Your task to perform on an android device: check android version Image 0: 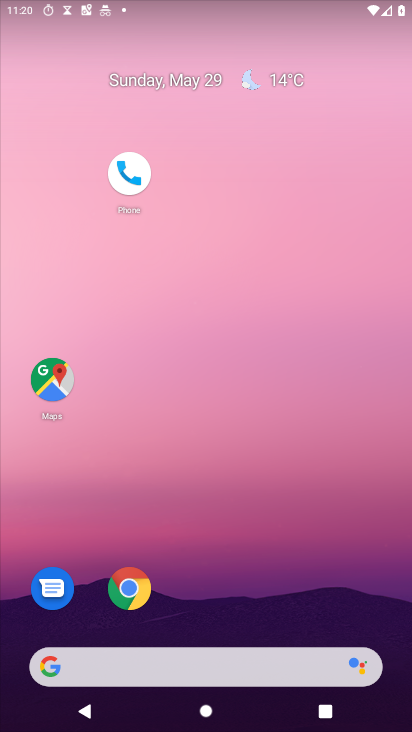
Step 0: drag from (198, 668) to (171, 404)
Your task to perform on an android device: check android version Image 1: 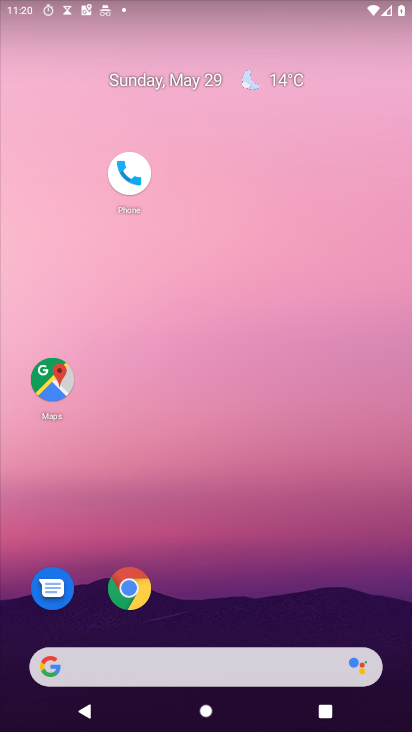
Step 1: drag from (272, 648) to (303, 41)
Your task to perform on an android device: check android version Image 2: 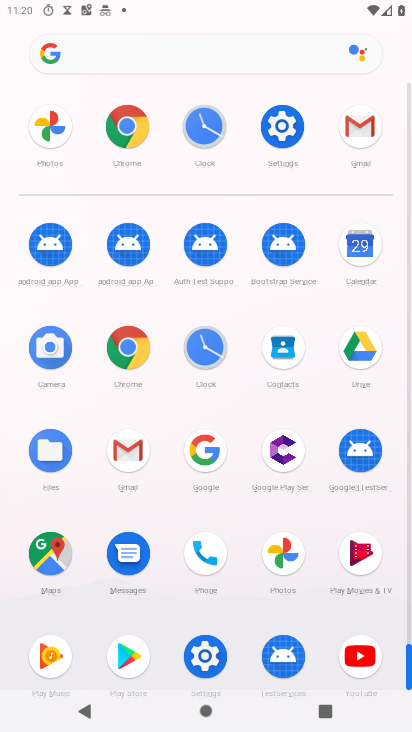
Step 2: drag from (258, 601) to (251, 91)
Your task to perform on an android device: check android version Image 3: 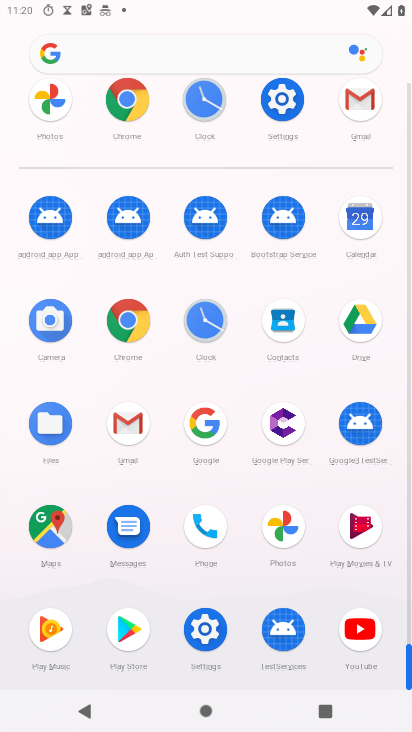
Step 3: click (191, 622)
Your task to perform on an android device: check android version Image 4: 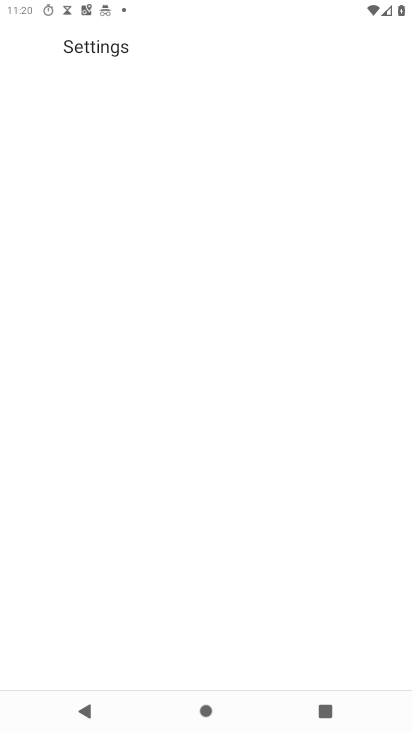
Step 4: click (197, 624)
Your task to perform on an android device: check android version Image 5: 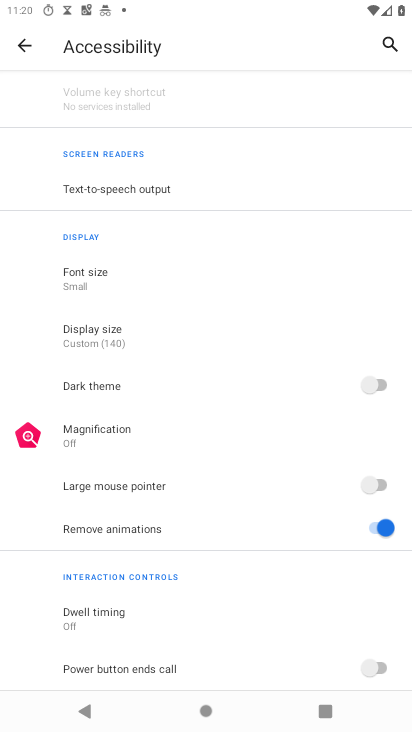
Step 5: drag from (131, 608) to (81, 269)
Your task to perform on an android device: check android version Image 6: 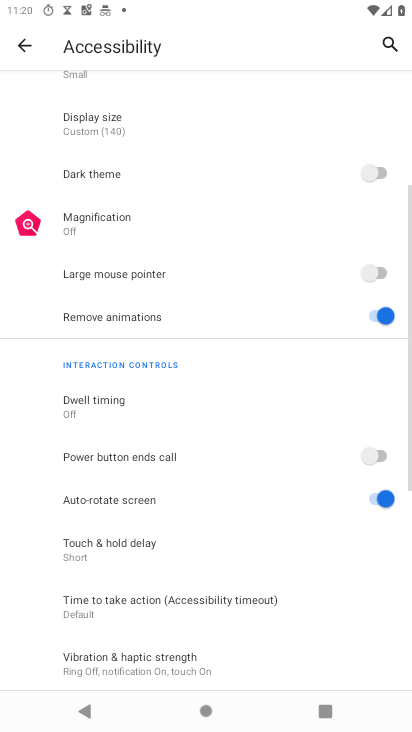
Step 6: click (22, 51)
Your task to perform on an android device: check android version Image 7: 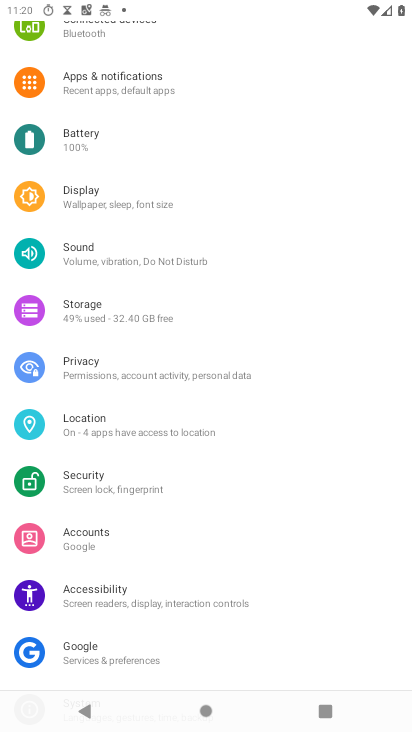
Step 7: drag from (133, 564) to (147, 144)
Your task to perform on an android device: check android version Image 8: 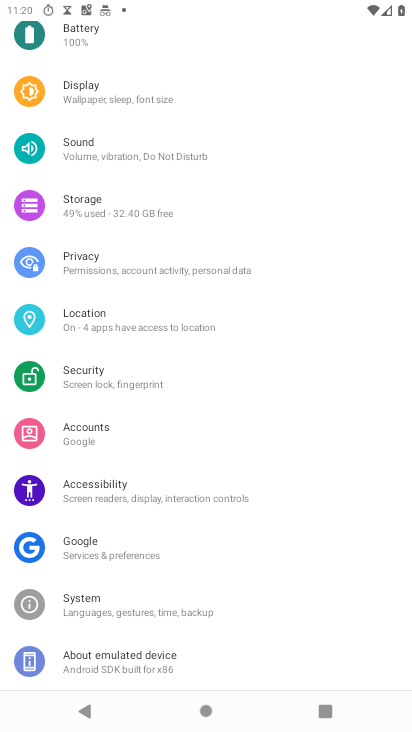
Step 8: drag from (148, 493) to (140, 162)
Your task to perform on an android device: check android version Image 9: 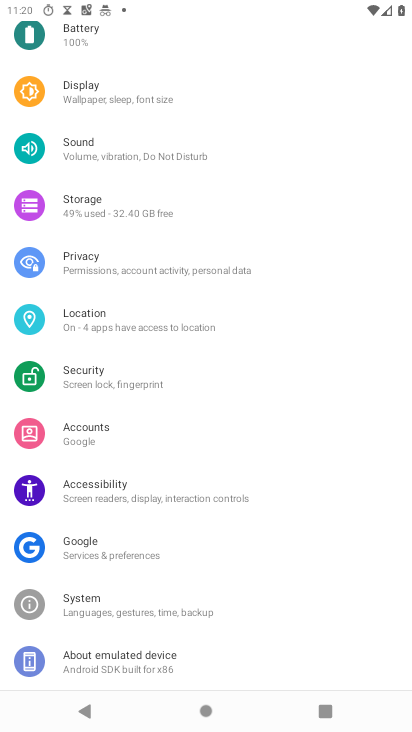
Step 9: click (91, 660)
Your task to perform on an android device: check android version Image 10: 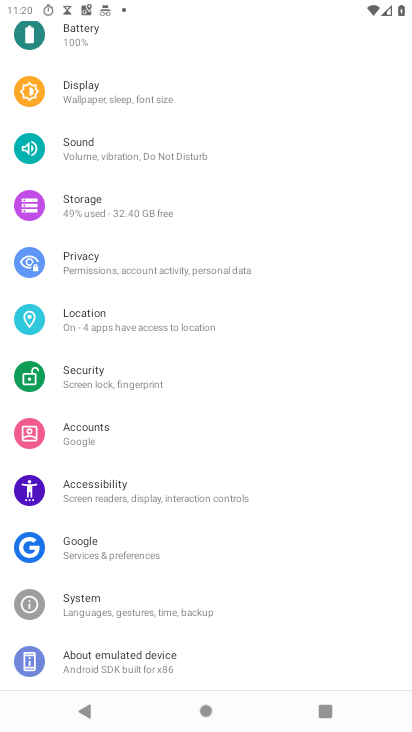
Step 10: click (91, 660)
Your task to perform on an android device: check android version Image 11: 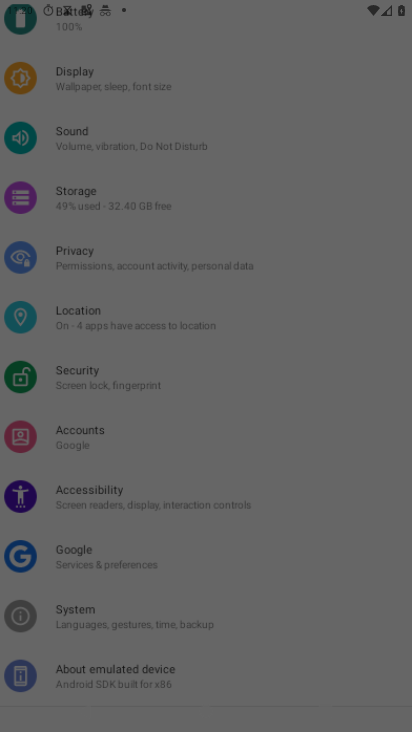
Step 11: click (91, 660)
Your task to perform on an android device: check android version Image 12: 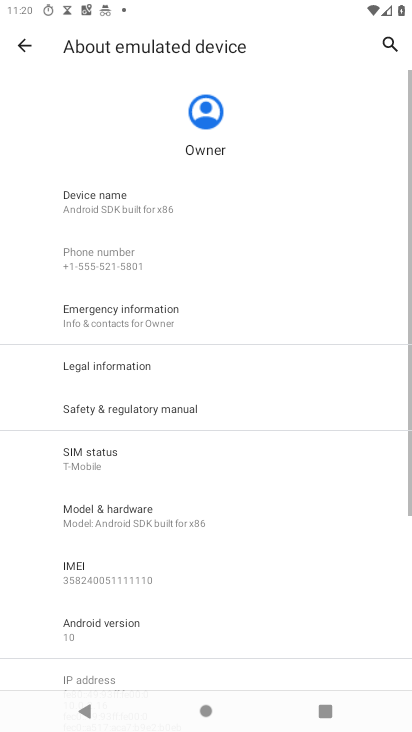
Step 12: drag from (194, 607) to (157, 92)
Your task to perform on an android device: check android version Image 13: 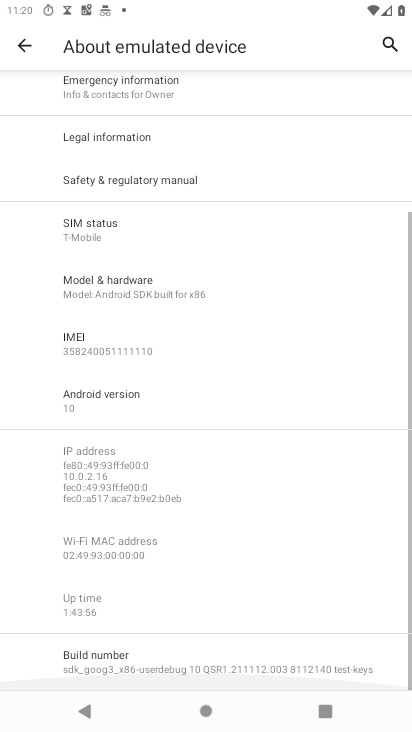
Step 13: drag from (202, 481) to (156, 41)
Your task to perform on an android device: check android version Image 14: 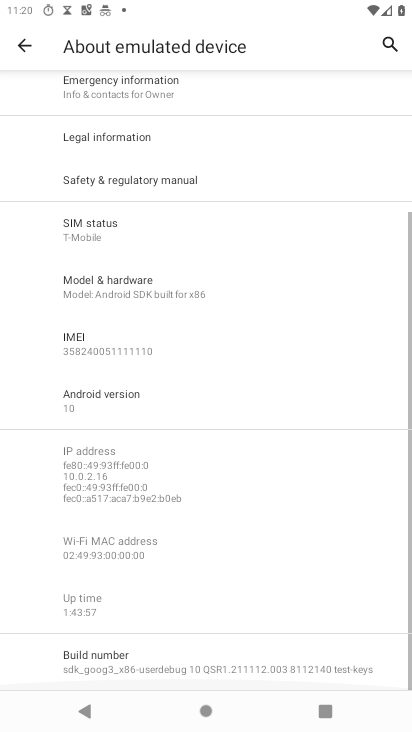
Step 14: drag from (154, 473) to (185, 138)
Your task to perform on an android device: check android version Image 15: 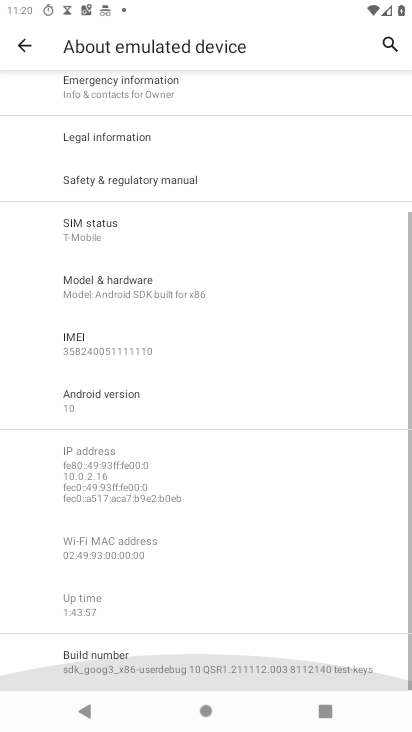
Step 15: drag from (195, 528) to (291, 167)
Your task to perform on an android device: check android version Image 16: 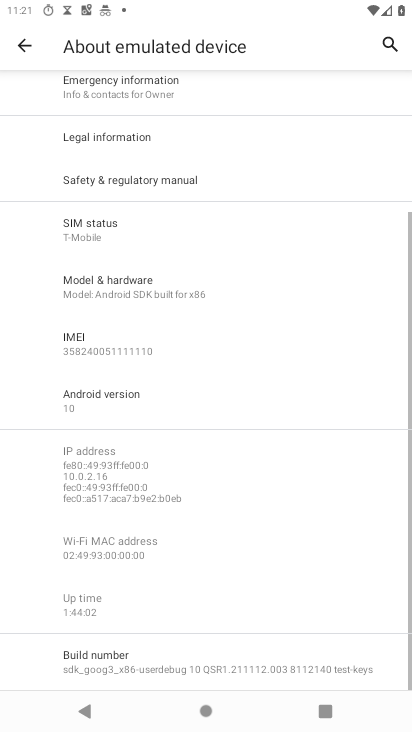
Step 16: drag from (82, 392) to (77, 239)
Your task to perform on an android device: check android version Image 17: 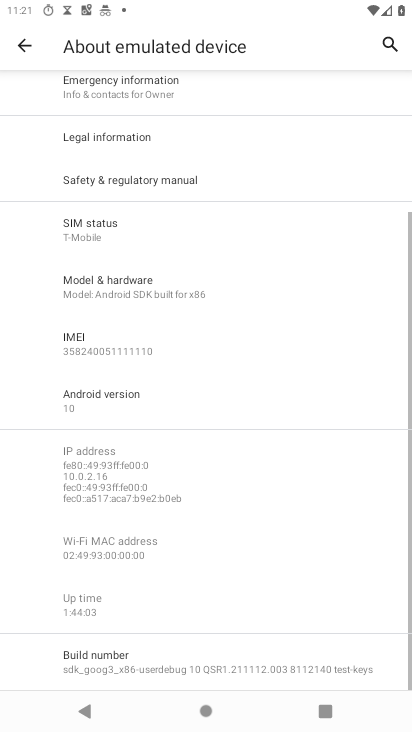
Step 17: click (105, 391)
Your task to perform on an android device: check android version Image 18: 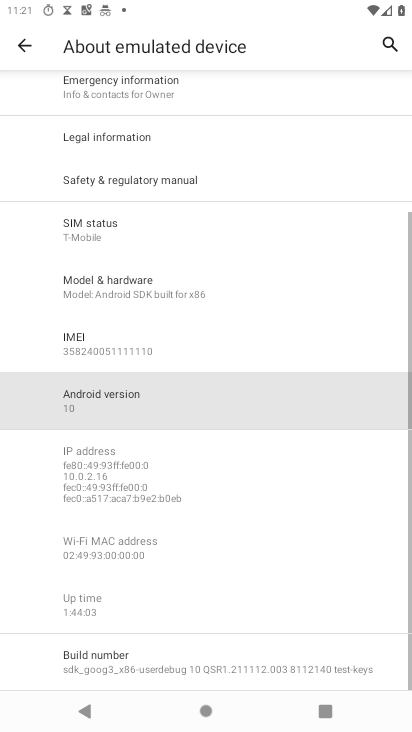
Step 18: click (105, 391)
Your task to perform on an android device: check android version Image 19: 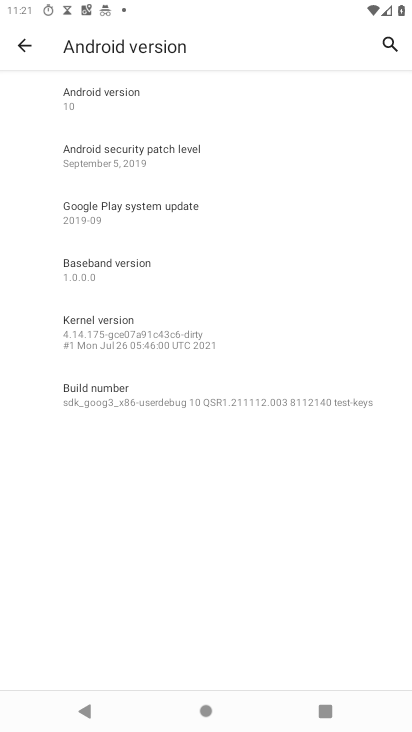
Step 19: click (105, 391)
Your task to perform on an android device: check android version Image 20: 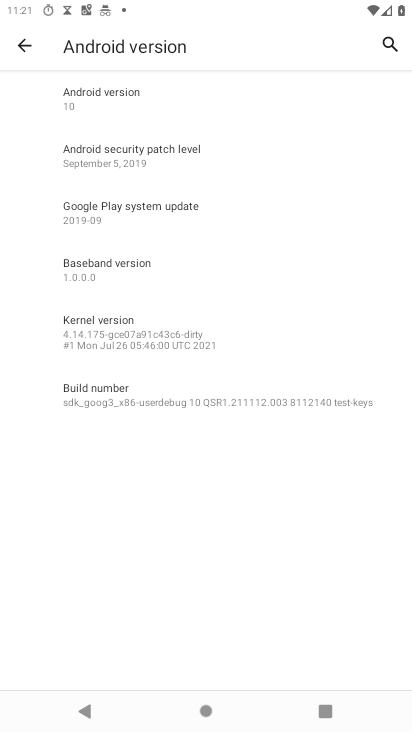
Step 20: task complete